Your task to perform on an android device: Go to notification settings Image 0: 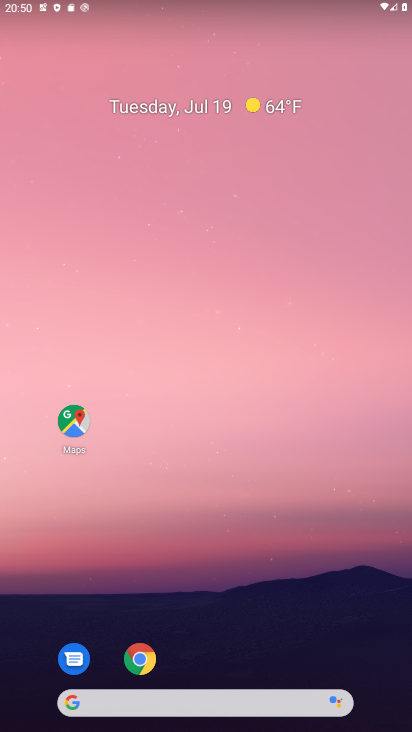
Step 0: drag from (210, 644) to (224, 17)
Your task to perform on an android device: Go to notification settings Image 1: 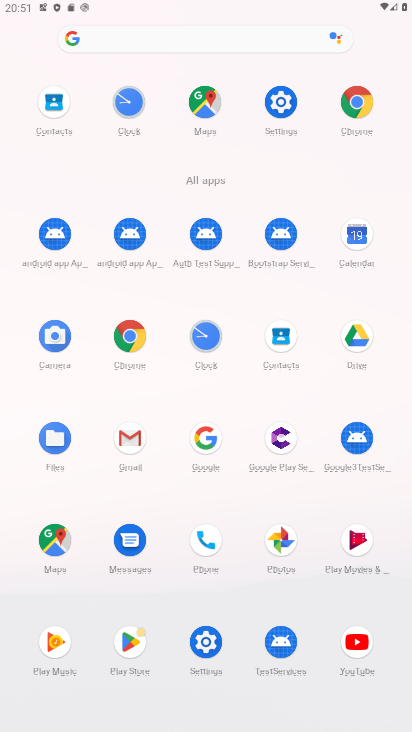
Step 1: click (284, 113)
Your task to perform on an android device: Go to notification settings Image 2: 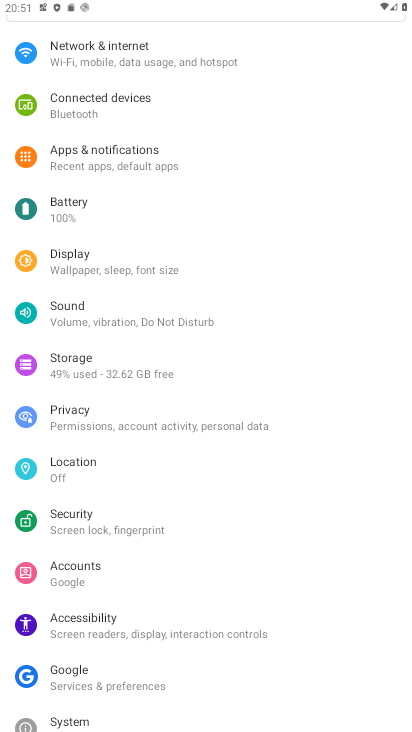
Step 2: click (177, 172)
Your task to perform on an android device: Go to notification settings Image 3: 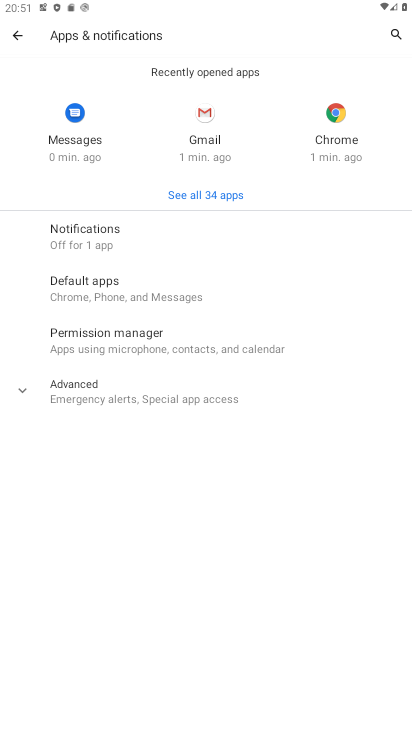
Step 3: task complete